Your task to perform on an android device: empty trash in the gmail app Image 0: 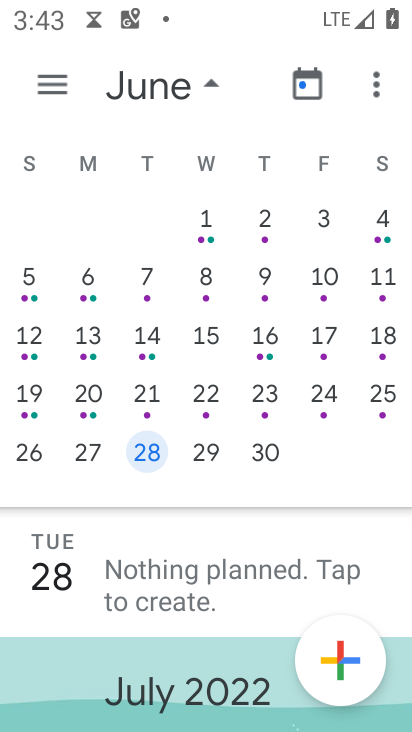
Step 0: press home button
Your task to perform on an android device: empty trash in the gmail app Image 1: 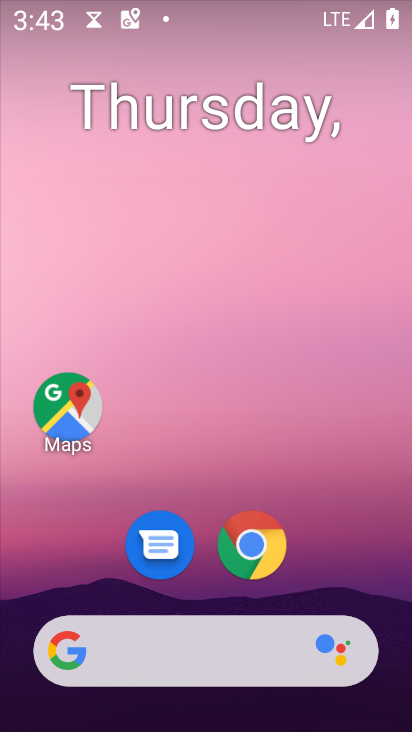
Step 1: drag from (337, 509) to (349, 118)
Your task to perform on an android device: empty trash in the gmail app Image 2: 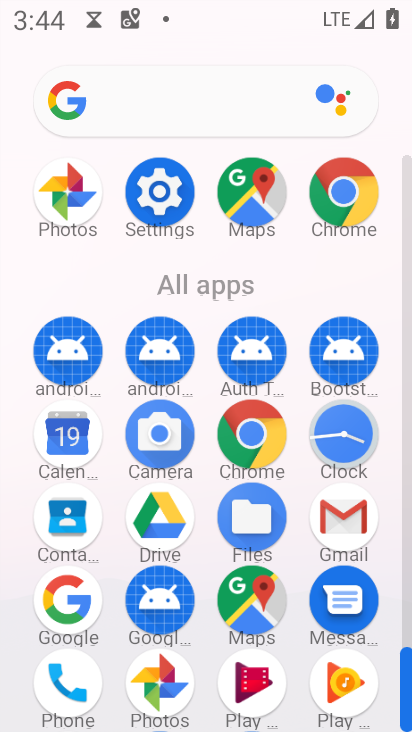
Step 2: click (355, 521)
Your task to perform on an android device: empty trash in the gmail app Image 3: 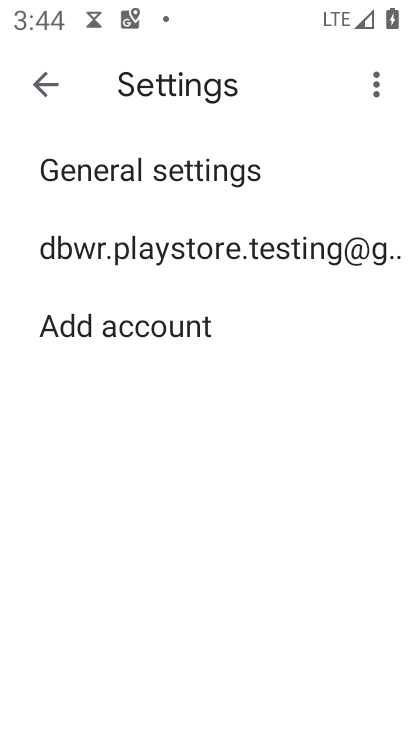
Step 3: click (168, 246)
Your task to perform on an android device: empty trash in the gmail app Image 4: 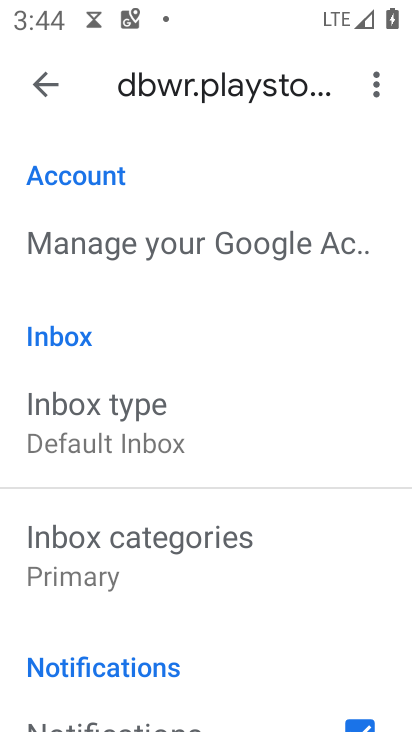
Step 4: click (63, 90)
Your task to perform on an android device: empty trash in the gmail app Image 5: 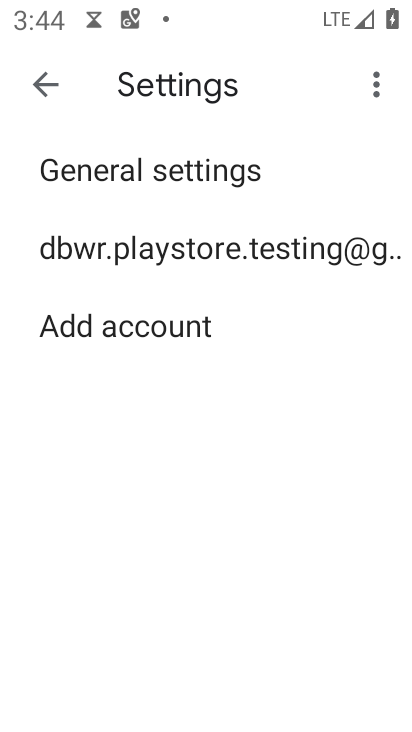
Step 5: click (63, 90)
Your task to perform on an android device: empty trash in the gmail app Image 6: 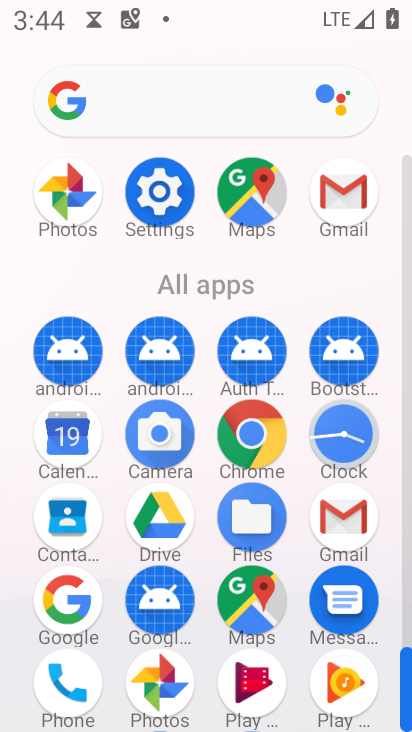
Step 6: click (334, 213)
Your task to perform on an android device: empty trash in the gmail app Image 7: 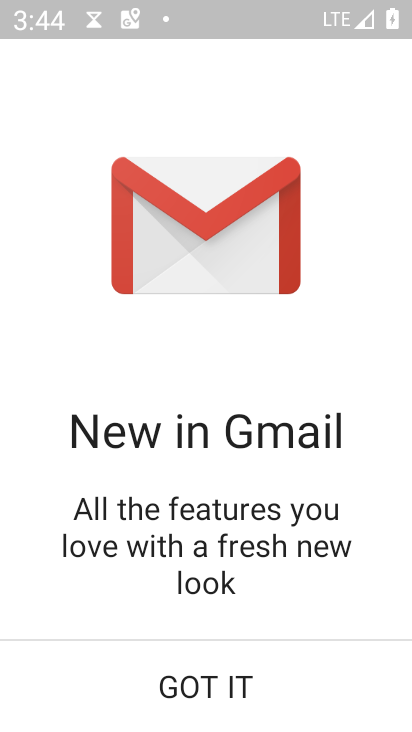
Step 7: click (214, 690)
Your task to perform on an android device: empty trash in the gmail app Image 8: 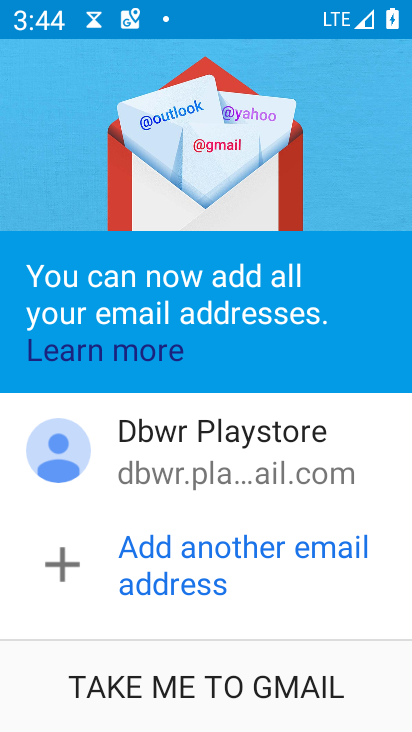
Step 8: click (143, 693)
Your task to perform on an android device: empty trash in the gmail app Image 9: 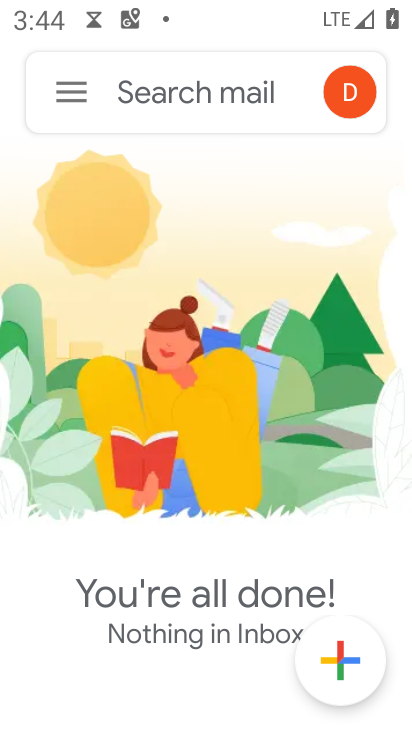
Step 9: click (88, 109)
Your task to perform on an android device: empty trash in the gmail app Image 10: 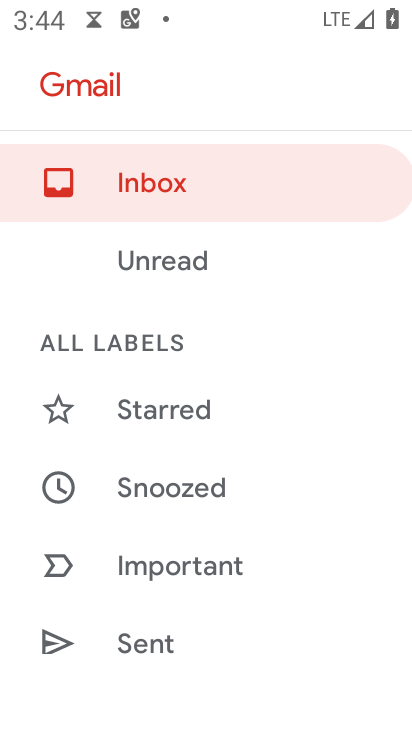
Step 10: drag from (207, 601) to (256, 166)
Your task to perform on an android device: empty trash in the gmail app Image 11: 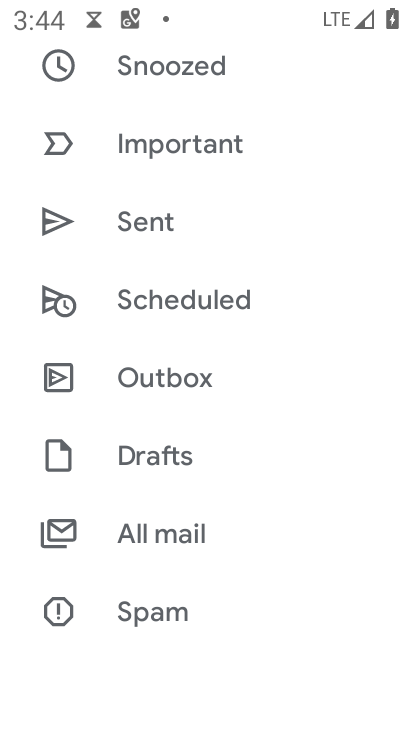
Step 11: drag from (163, 583) to (201, 227)
Your task to perform on an android device: empty trash in the gmail app Image 12: 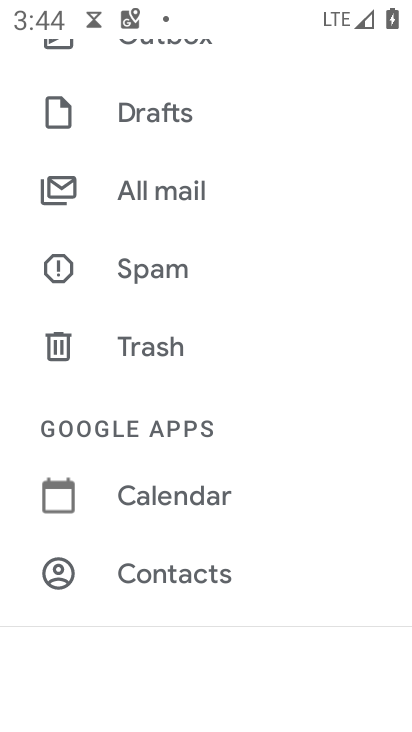
Step 12: click (145, 354)
Your task to perform on an android device: empty trash in the gmail app Image 13: 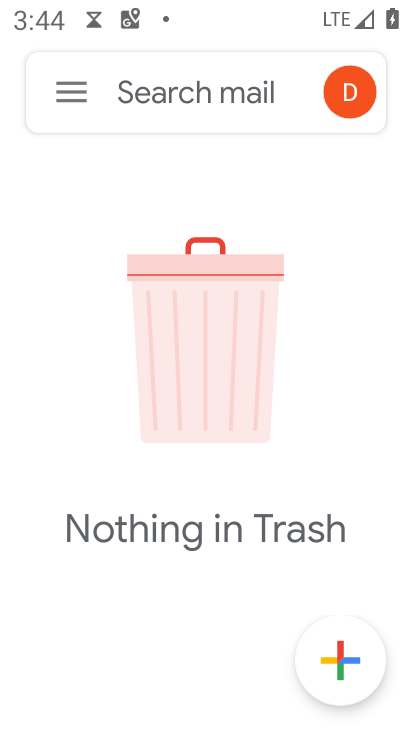
Step 13: task complete